Your task to perform on an android device: change timer sound Image 0: 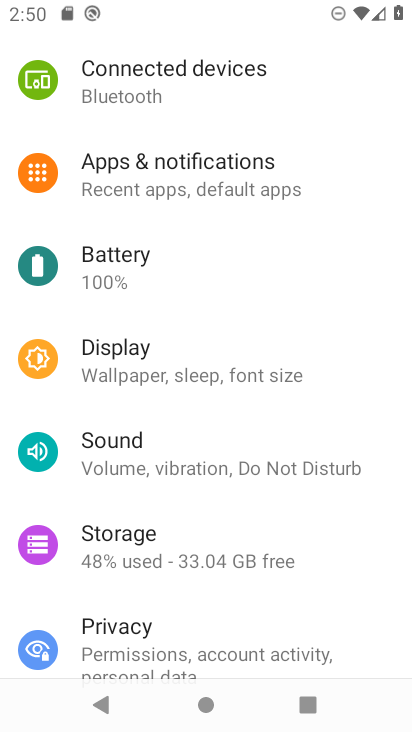
Step 0: press home button
Your task to perform on an android device: change timer sound Image 1: 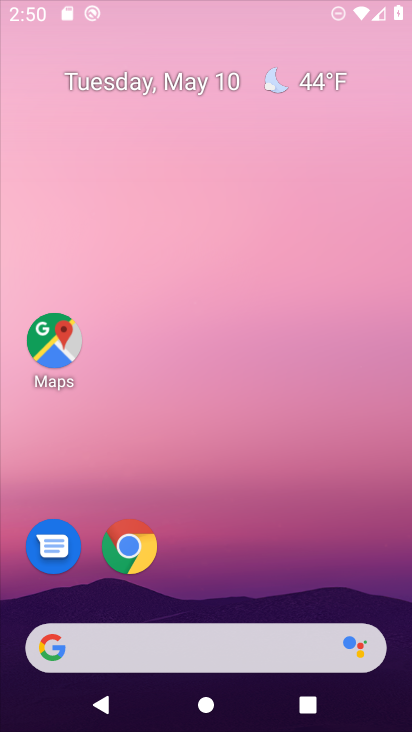
Step 1: drag from (216, 661) to (220, 19)
Your task to perform on an android device: change timer sound Image 2: 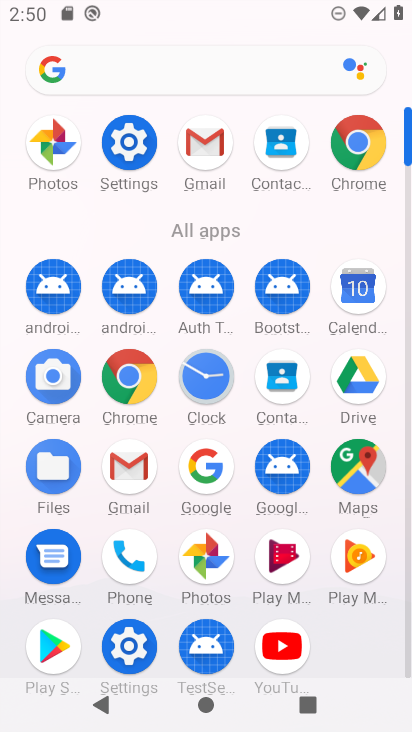
Step 2: click (209, 372)
Your task to perform on an android device: change timer sound Image 3: 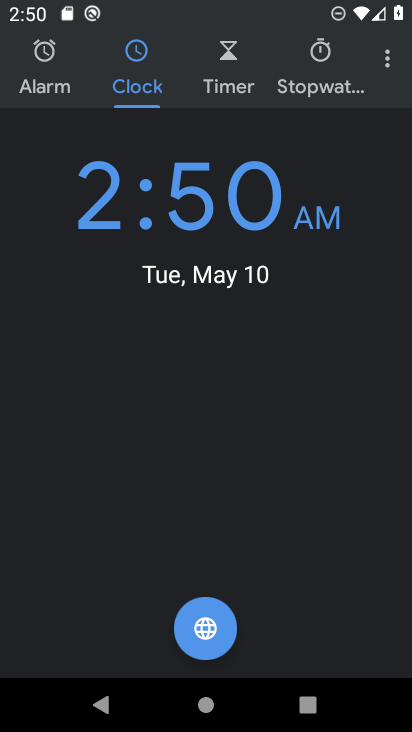
Step 3: click (205, 67)
Your task to perform on an android device: change timer sound Image 4: 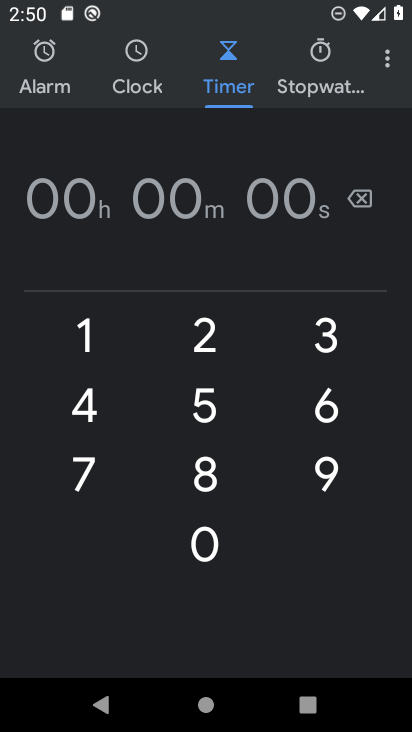
Step 4: click (379, 65)
Your task to perform on an android device: change timer sound Image 5: 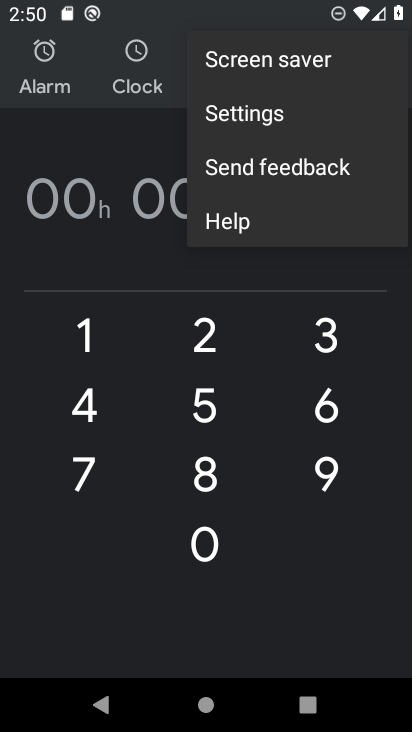
Step 5: click (264, 116)
Your task to perform on an android device: change timer sound Image 6: 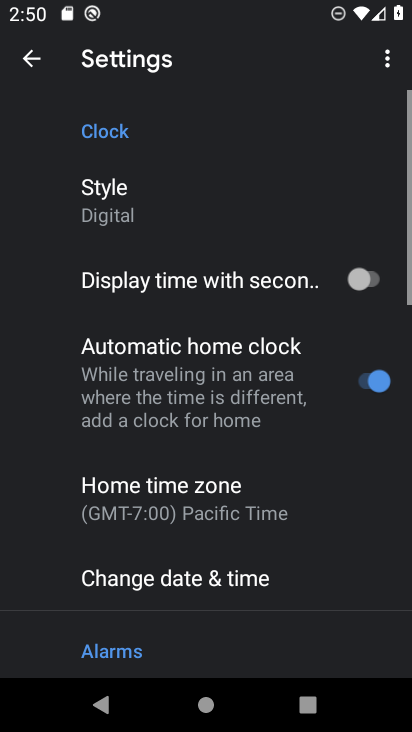
Step 6: drag from (280, 598) to (318, 127)
Your task to perform on an android device: change timer sound Image 7: 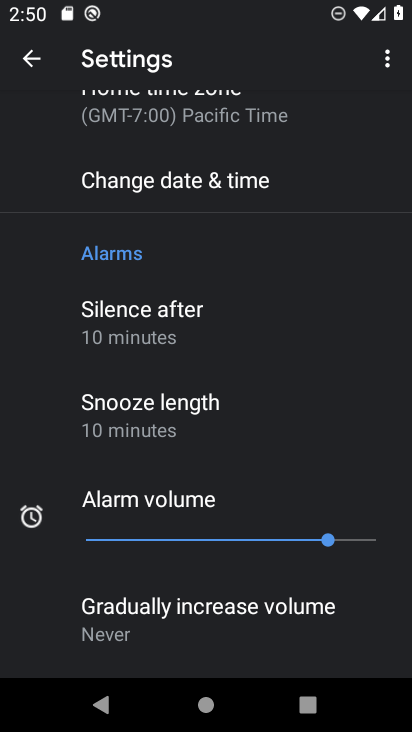
Step 7: drag from (116, 562) to (169, 94)
Your task to perform on an android device: change timer sound Image 8: 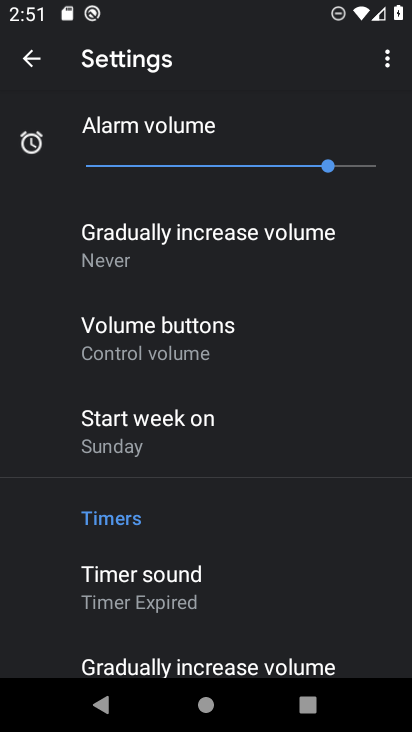
Step 8: click (183, 593)
Your task to perform on an android device: change timer sound Image 9: 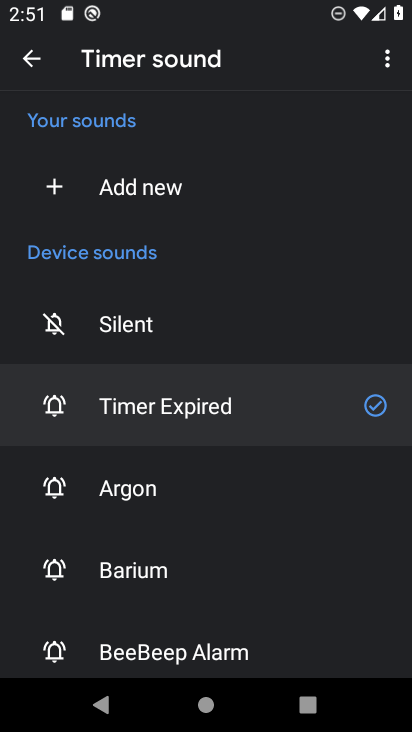
Step 9: click (138, 500)
Your task to perform on an android device: change timer sound Image 10: 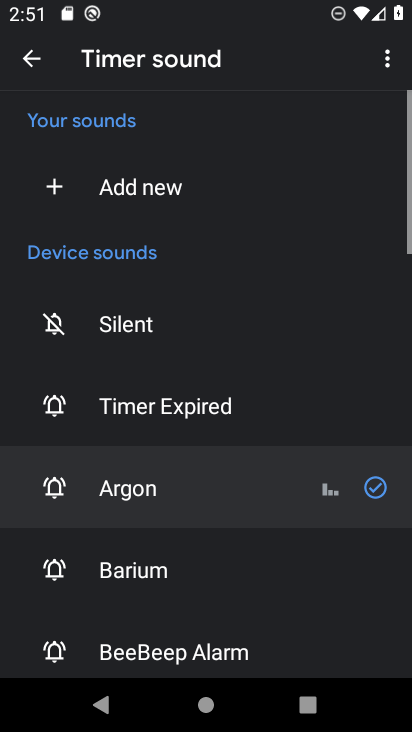
Step 10: task complete